Your task to perform on an android device: toggle improve location accuracy Image 0: 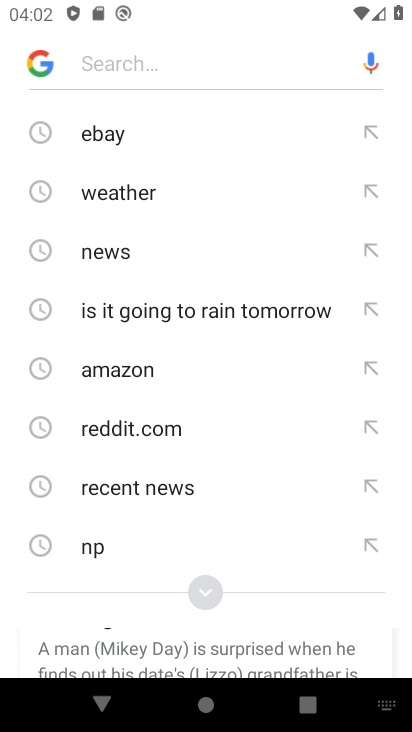
Step 0: press home button
Your task to perform on an android device: toggle improve location accuracy Image 1: 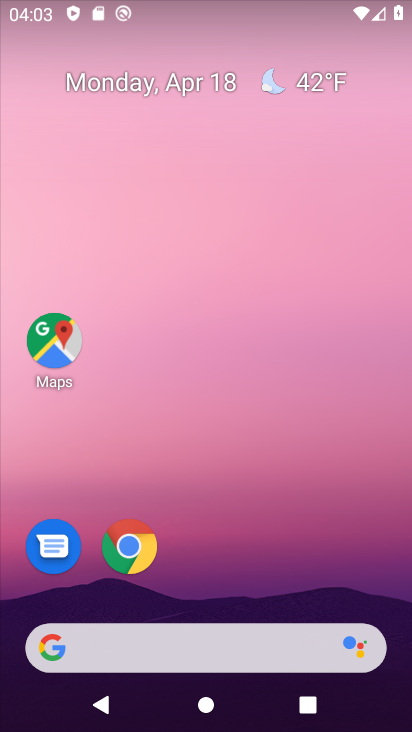
Step 1: drag from (204, 279) to (199, 168)
Your task to perform on an android device: toggle improve location accuracy Image 2: 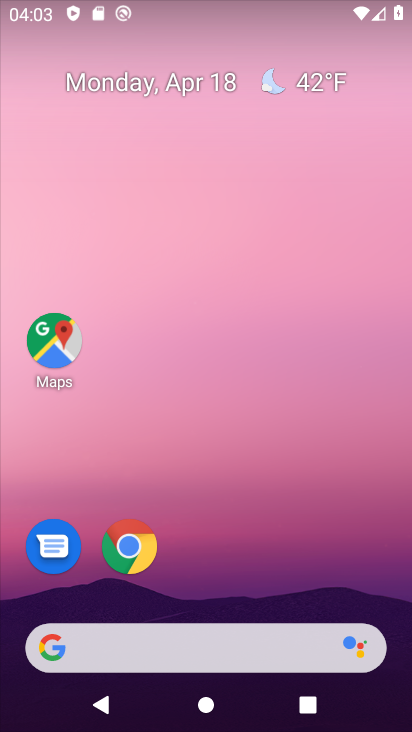
Step 2: drag from (188, 576) to (197, 183)
Your task to perform on an android device: toggle improve location accuracy Image 3: 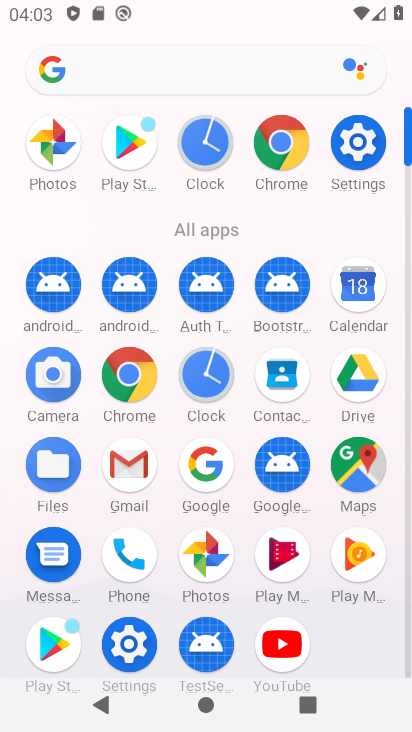
Step 3: click (365, 125)
Your task to perform on an android device: toggle improve location accuracy Image 4: 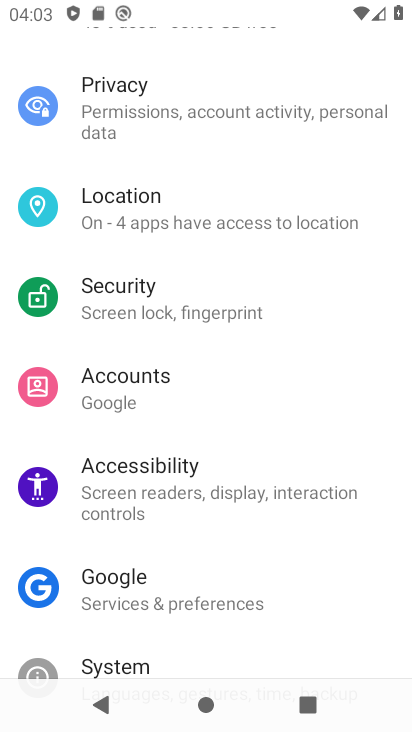
Step 4: click (188, 223)
Your task to perform on an android device: toggle improve location accuracy Image 5: 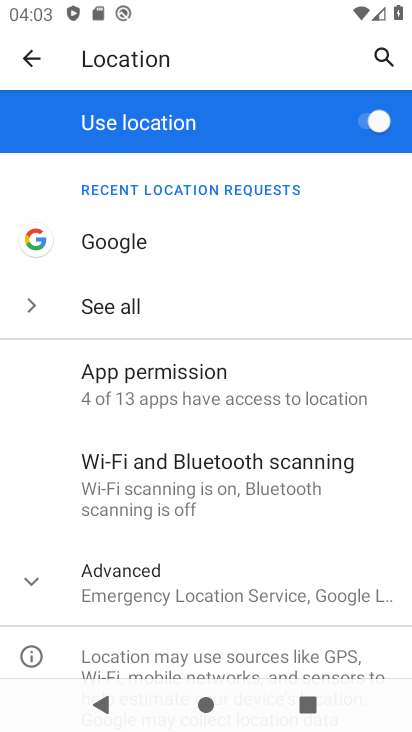
Step 5: click (148, 591)
Your task to perform on an android device: toggle improve location accuracy Image 6: 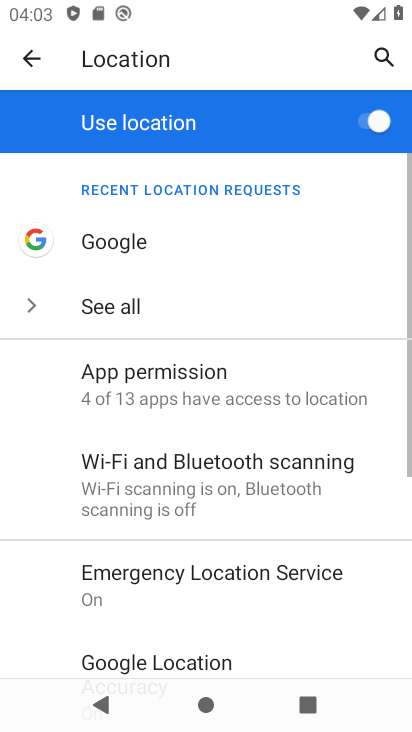
Step 6: drag from (193, 547) to (210, 247)
Your task to perform on an android device: toggle improve location accuracy Image 7: 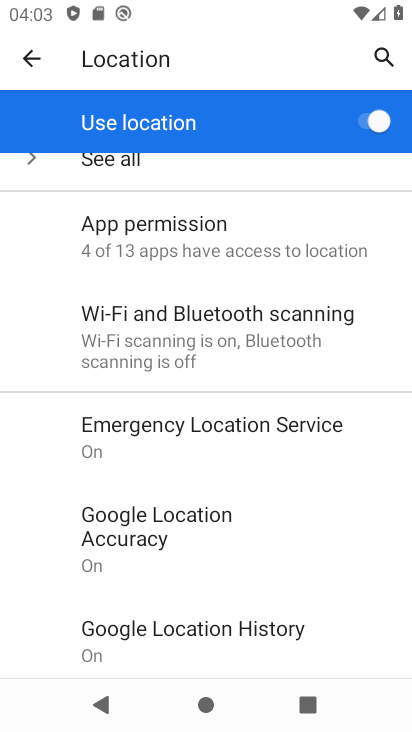
Step 7: click (250, 519)
Your task to perform on an android device: toggle improve location accuracy Image 8: 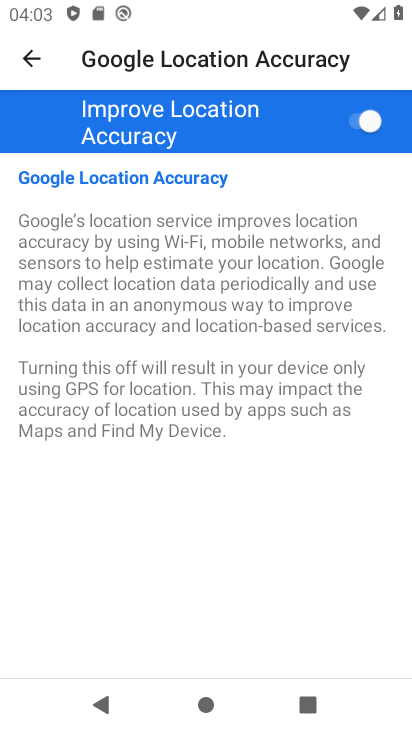
Step 8: click (346, 129)
Your task to perform on an android device: toggle improve location accuracy Image 9: 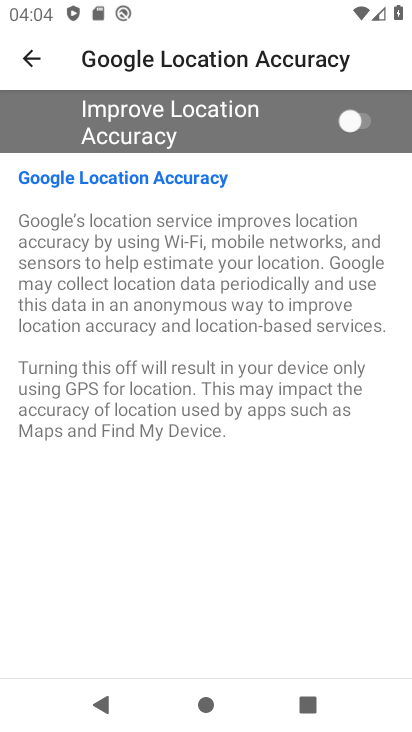
Step 9: task complete